Your task to perform on an android device: turn off sleep mode Image 0: 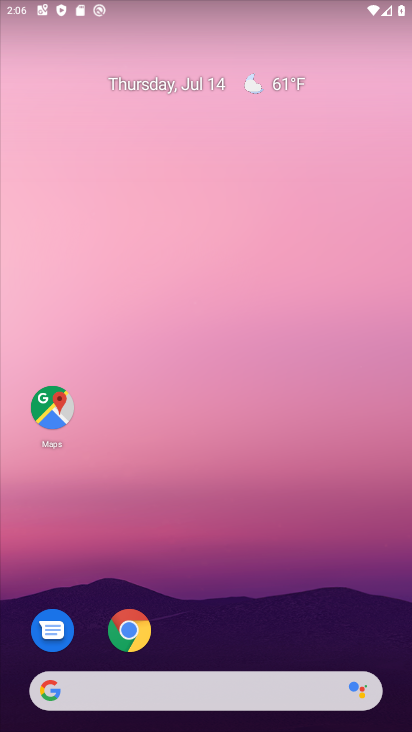
Step 0: press home button
Your task to perform on an android device: turn off sleep mode Image 1: 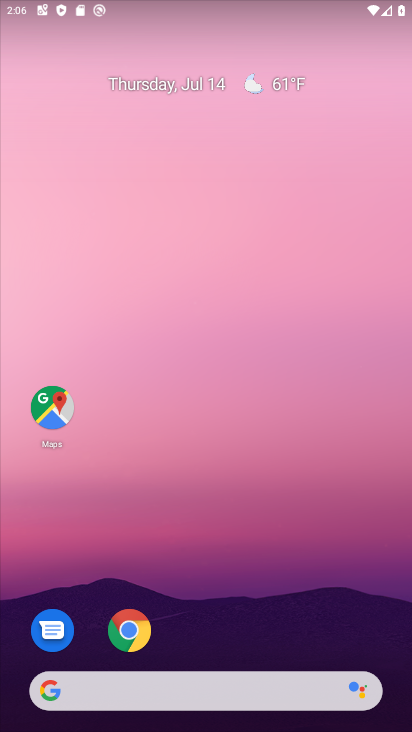
Step 1: drag from (162, 638) to (281, 20)
Your task to perform on an android device: turn off sleep mode Image 2: 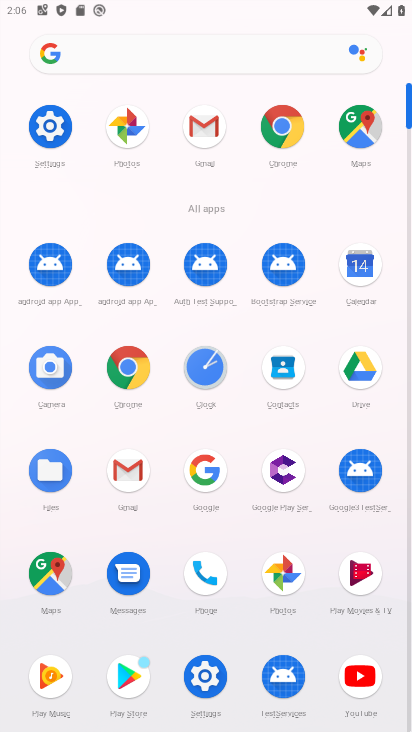
Step 2: click (50, 126)
Your task to perform on an android device: turn off sleep mode Image 3: 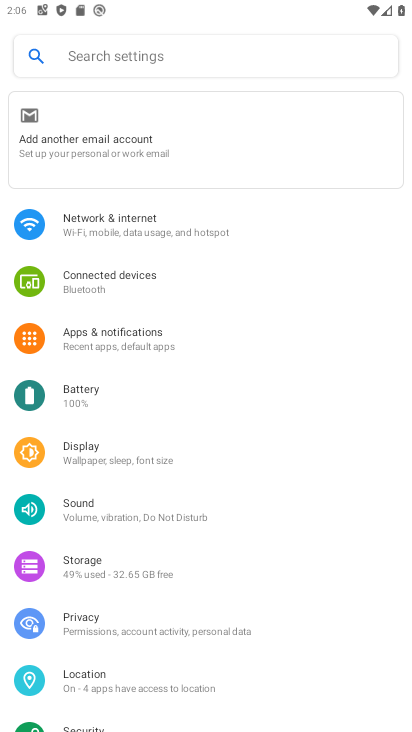
Step 3: click (150, 458)
Your task to perform on an android device: turn off sleep mode Image 4: 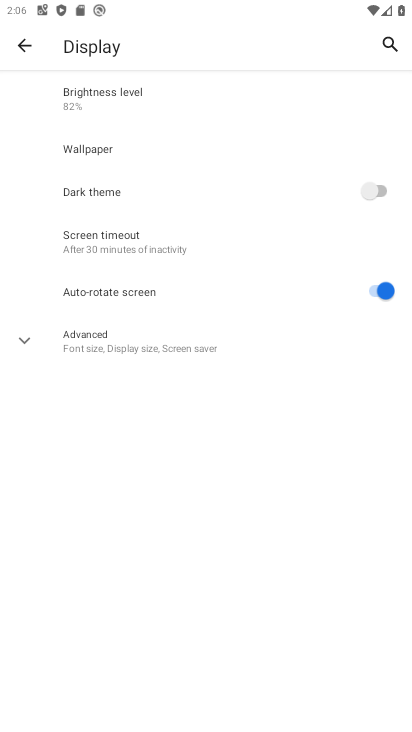
Step 4: click (106, 343)
Your task to perform on an android device: turn off sleep mode Image 5: 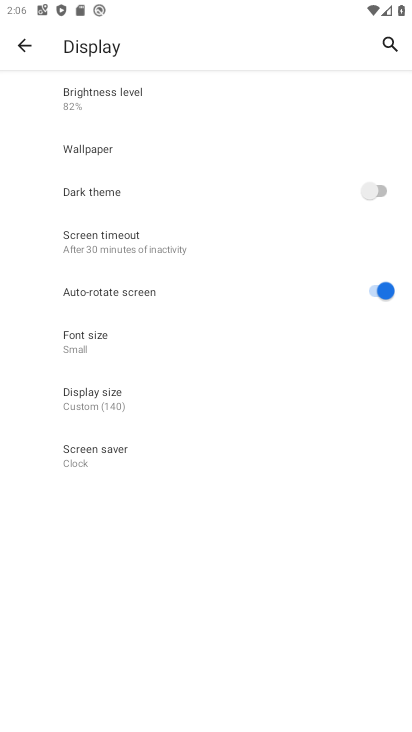
Step 5: task complete